Your task to perform on an android device: turn on location history Image 0: 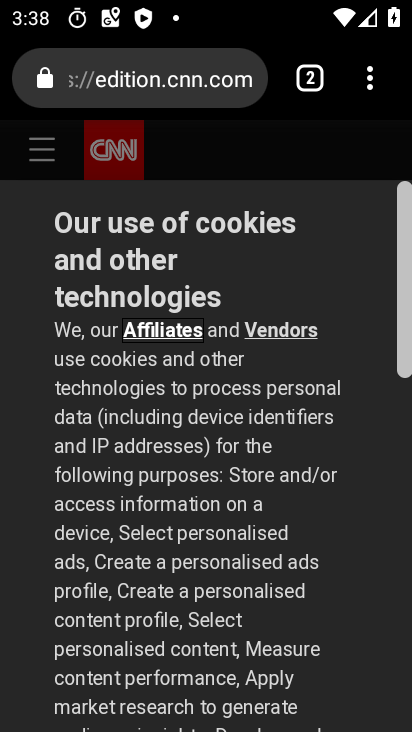
Step 0: press home button
Your task to perform on an android device: turn on location history Image 1: 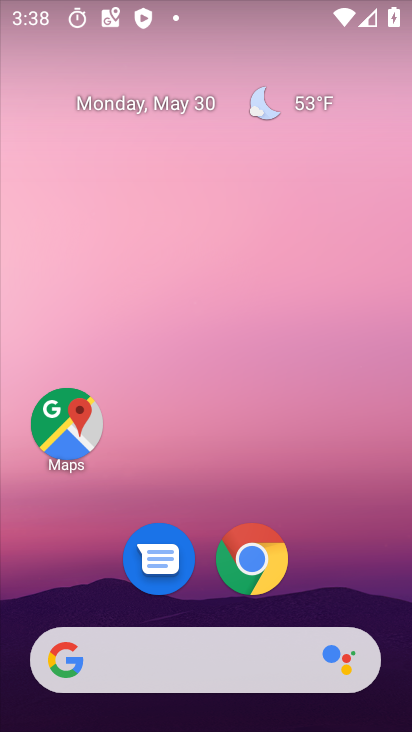
Step 1: drag from (223, 717) to (240, 96)
Your task to perform on an android device: turn on location history Image 2: 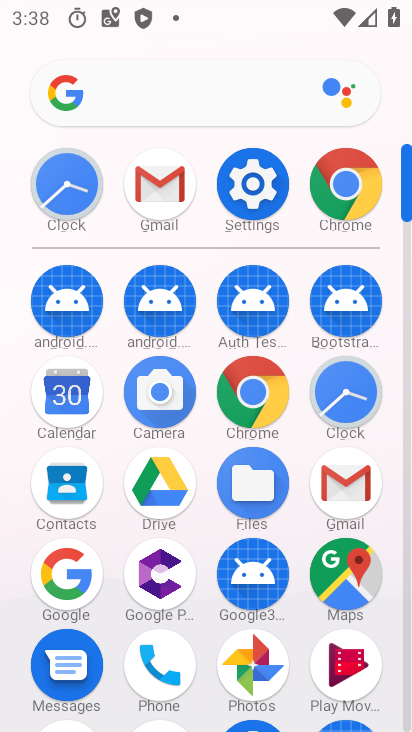
Step 2: click (254, 191)
Your task to perform on an android device: turn on location history Image 3: 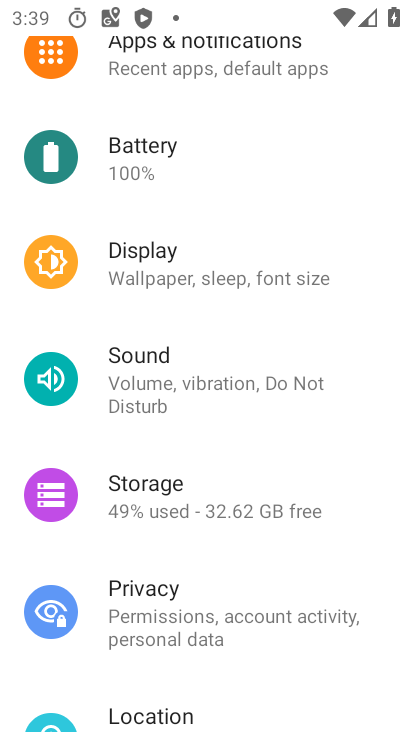
Step 3: click (150, 714)
Your task to perform on an android device: turn on location history Image 4: 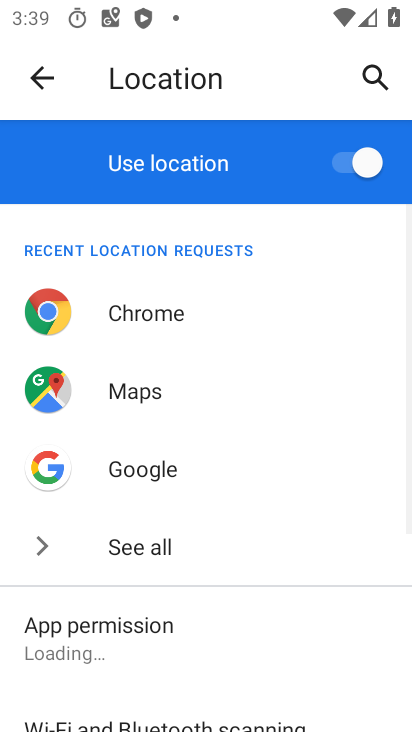
Step 4: drag from (228, 638) to (227, 402)
Your task to perform on an android device: turn on location history Image 5: 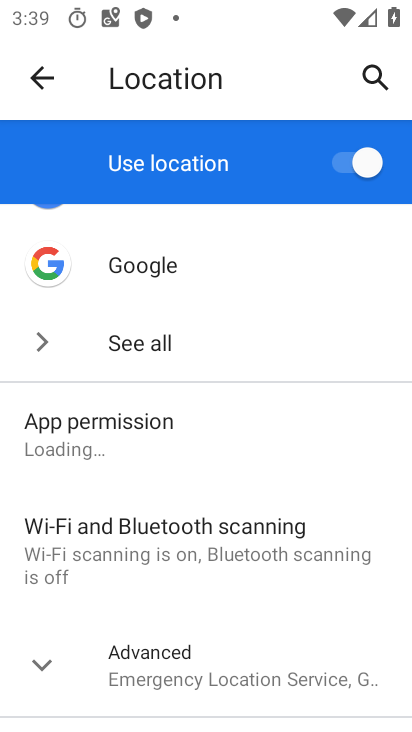
Step 5: click (197, 663)
Your task to perform on an android device: turn on location history Image 6: 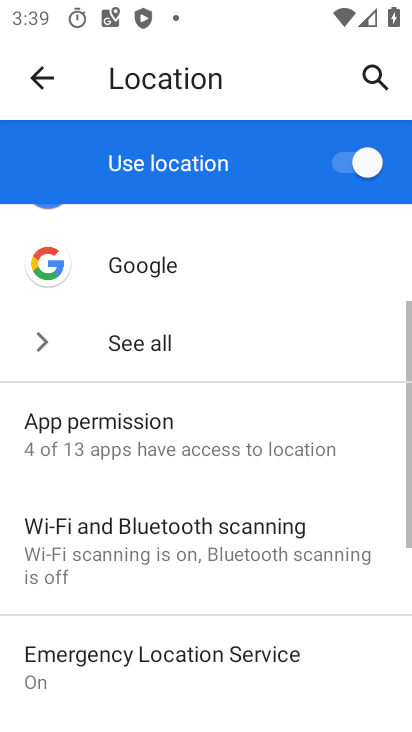
Step 6: drag from (187, 710) to (196, 429)
Your task to perform on an android device: turn on location history Image 7: 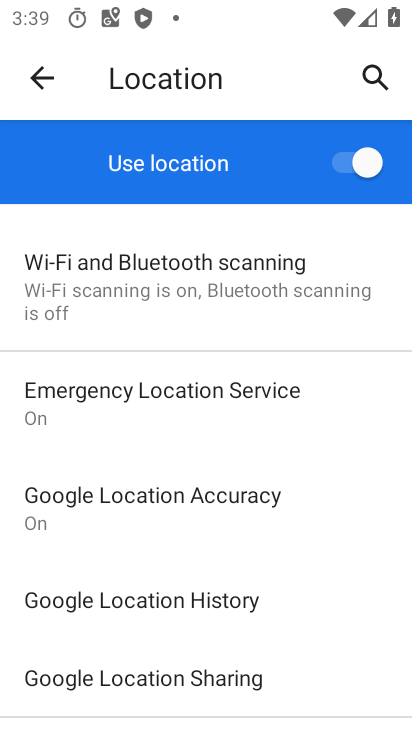
Step 7: click (198, 597)
Your task to perform on an android device: turn on location history Image 8: 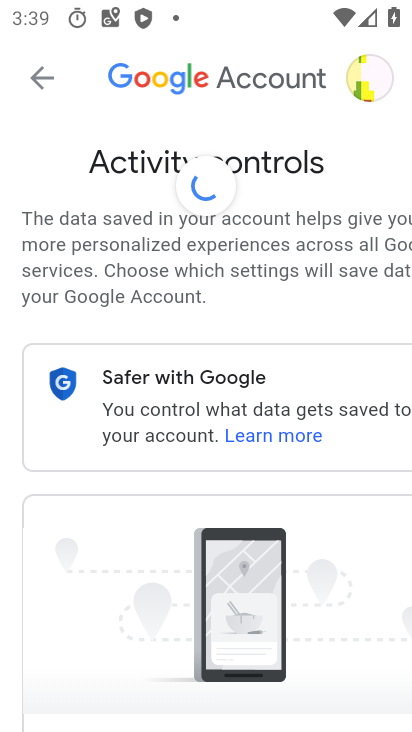
Step 8: drag from (253, 666) to (257, 526)
Your task to perform on an android device: turn on location history Image 9: 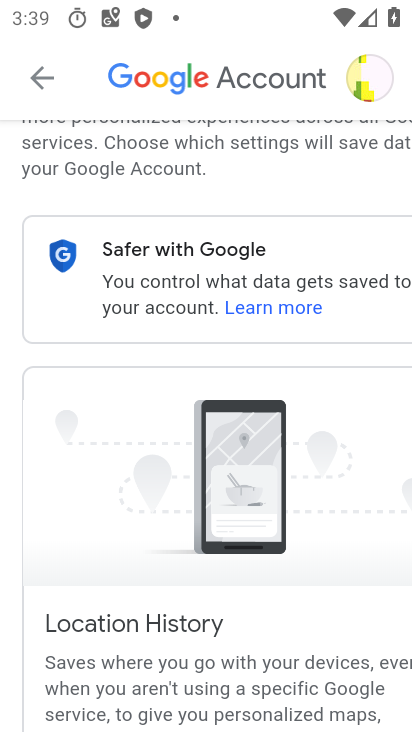
Step 9: drag from (284, 701) to (284, 514)
Your task to perform on an android device: turn on location history Image 10: 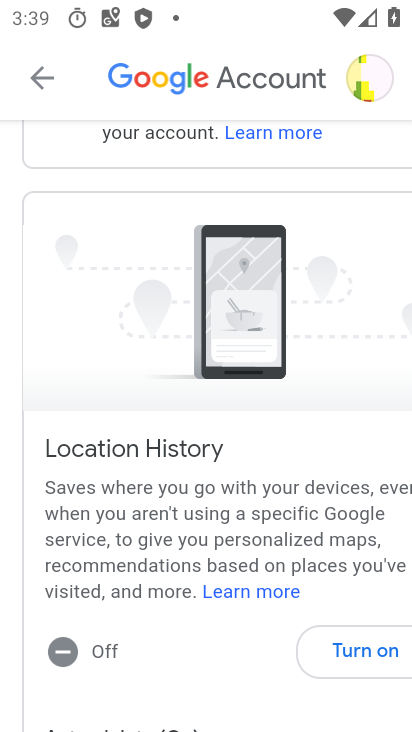
Step 10: click (341, 646)
Your task to perform on an android device: turn on location history Image 11: 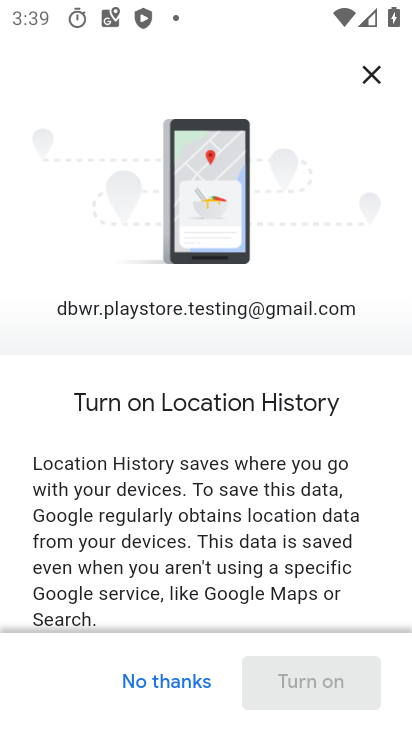
Step 11: drag from (321, 610) to (318, 122)
Your task to perform on an android device: turn on location history Image 12: 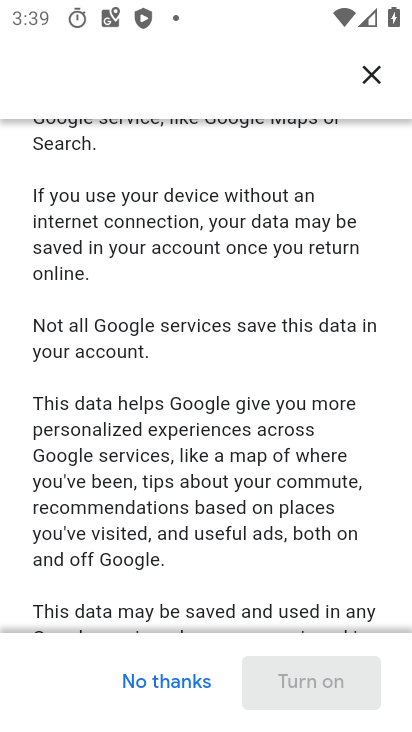
Step 12: drag from (290, 548) to (289, 129)
Your task to perform on an android device: turn on location history Image 13: 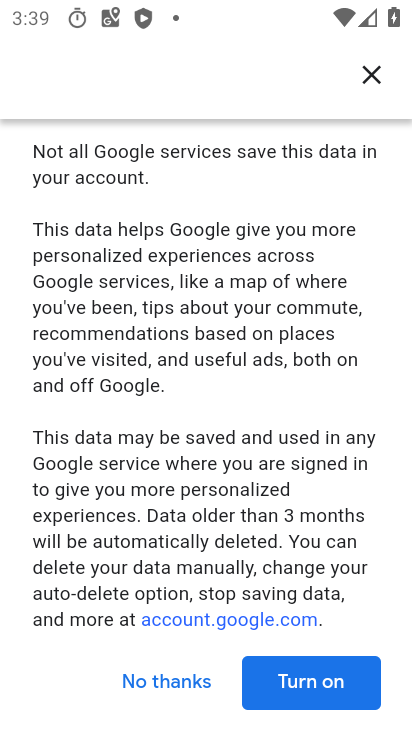
Step 13: click (313, 679)
Your task to perform on an android device: turn on location history Image 14: 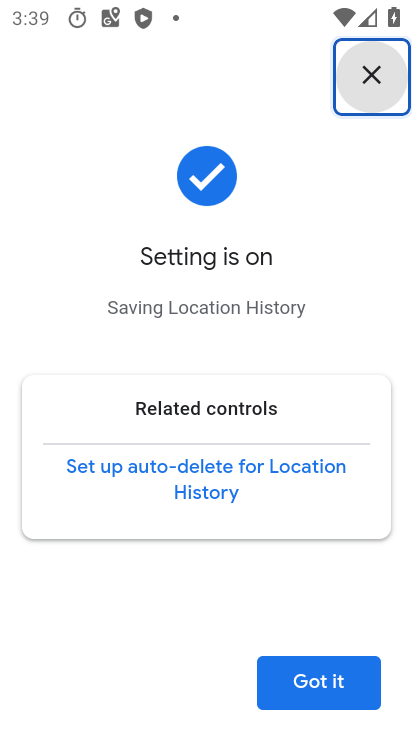
Step 14: task complete